Your task to perform on an android device: open a bookmark in the chrome app Image 0: 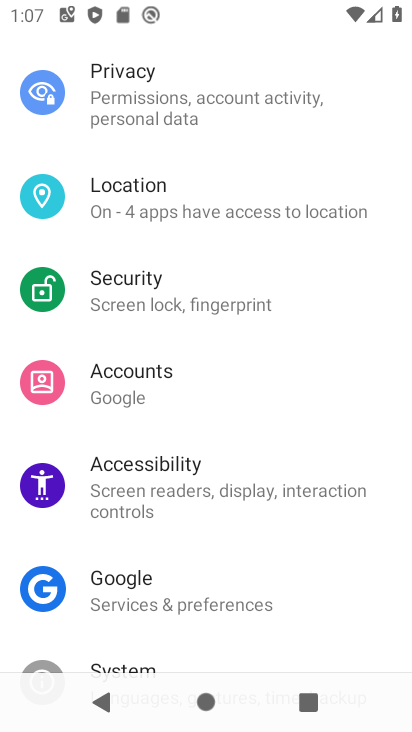
Step 0: press home button
Your task to perform on an android device: open a bookmark in the chrome app Image 1: 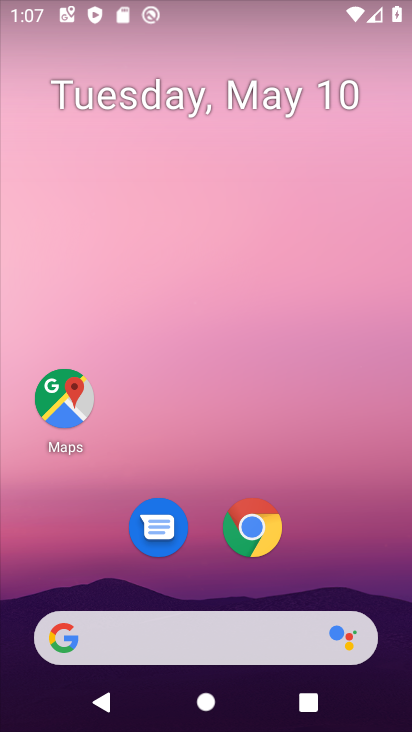
Step 1: click (243, 527)
Your task to perform on an android device: open a bookmark in the chrome app Image 2: 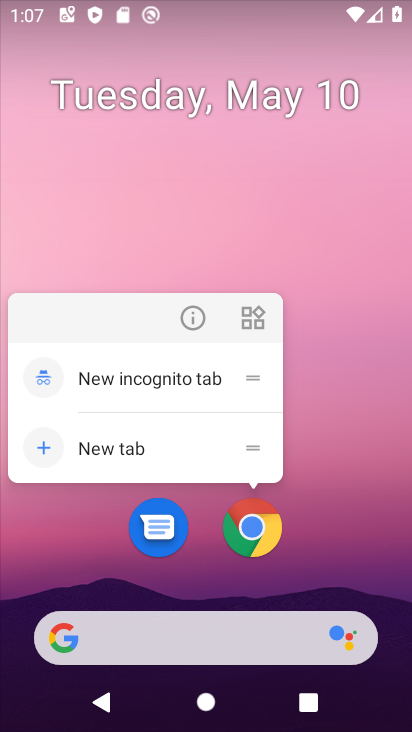
Step 2: click (194, 316)
Your task to perform on an android device: open a bookmark in the chrome app Image 3: 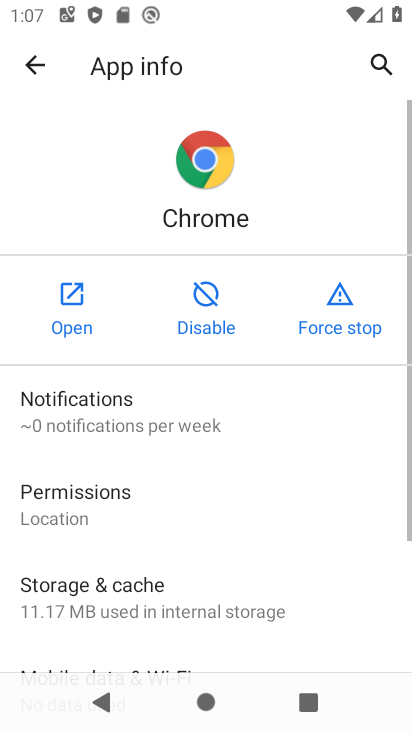
Step 3: click (78, 310)
Your task to perform on an android device: open a bookmark in the chrome app Image 4: 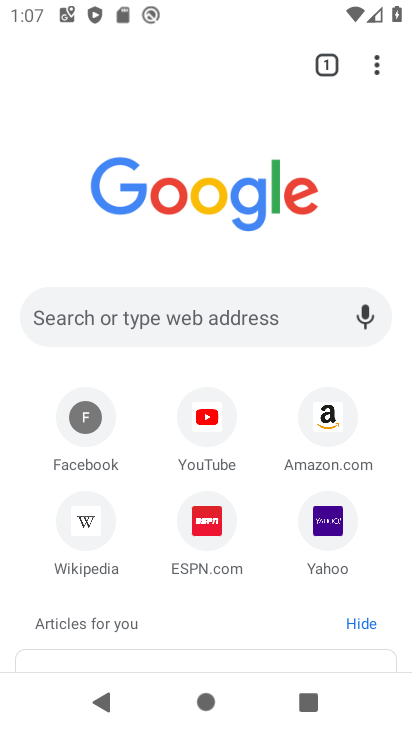
Step 4: click (377, 59)
Your task to perform on an android device: open a bookmark in the chrome app Image 5: 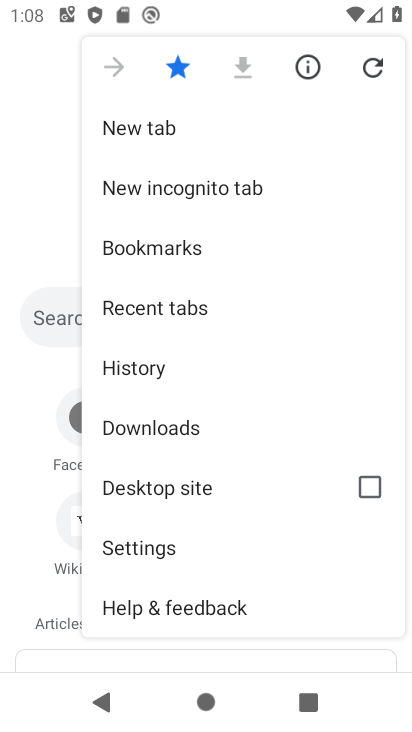
Step 5: click (185, 248)
Your task to perform on an android device: open a bookmark in the chrome app Image 6: 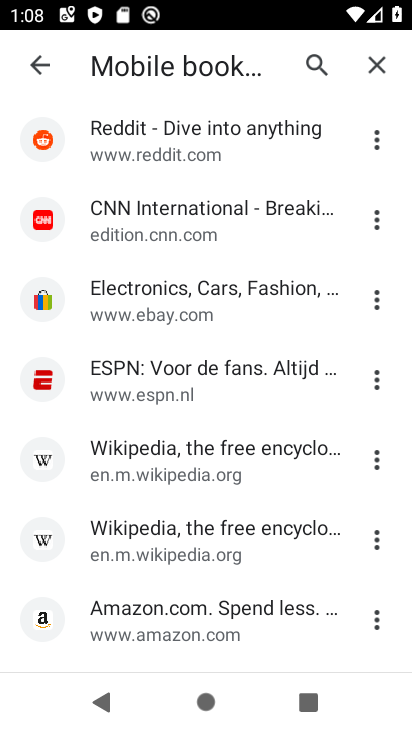
Step 6: task complete